Your task to perform on an android device: Is it going to rain this weekend? Image 0: 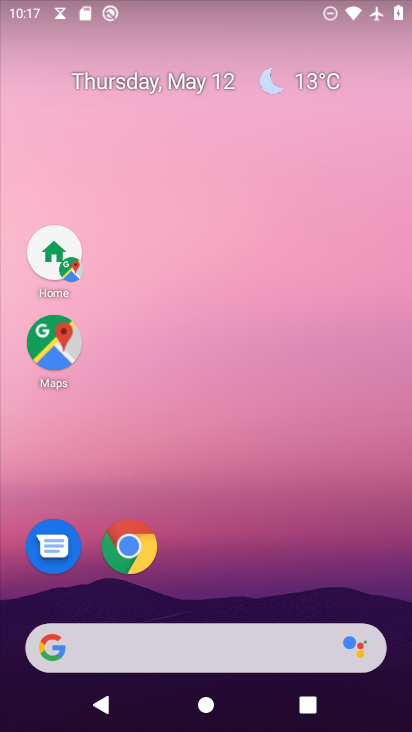
Step 0: drag from (186, 652) to (269, 334)
Your task to perform on an android device: Is it going to rain this weekend? Image 1: 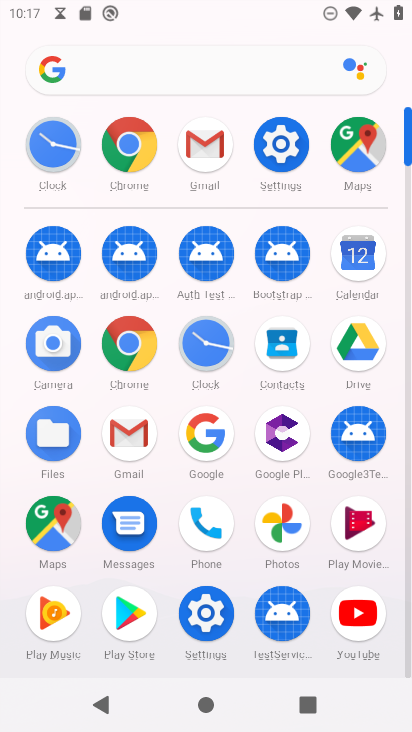
Step 1: drag from (255, 77) to (166, 561)
Your task to perform on an android device: Is it going to rain this weekend? Image 2: 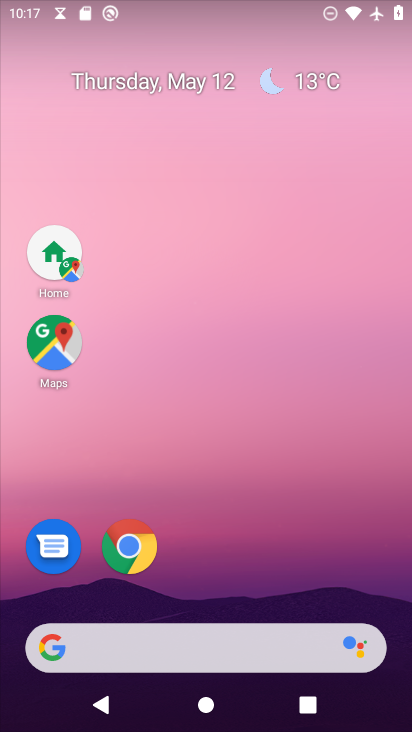
Step 2: click (303, 82)
Your task to perform on an android device: Is it going to rain this weekend? Image 3: 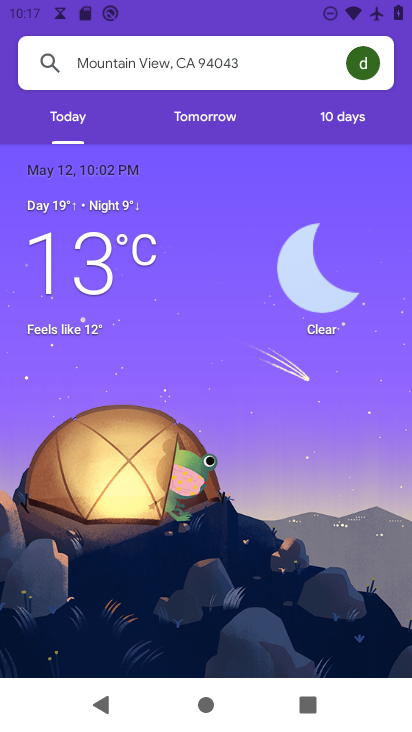
Step 3: click (326, 118)
Your task to perform on an android device: Is it going to rain this weekend? Image 4: 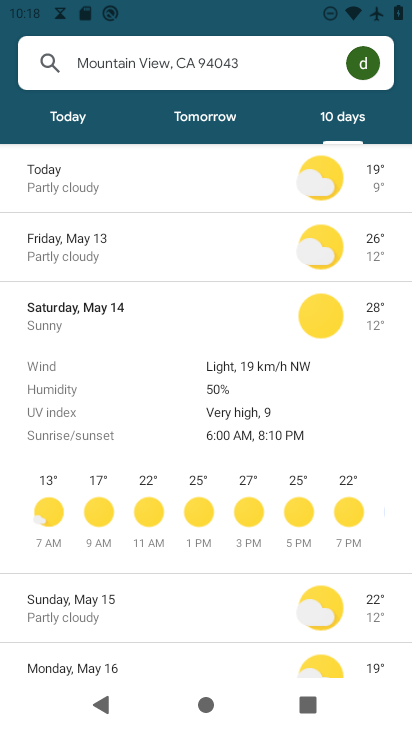
Step 4: task complete